Your task to perform on an android device: Open ESPN.com Image 0: 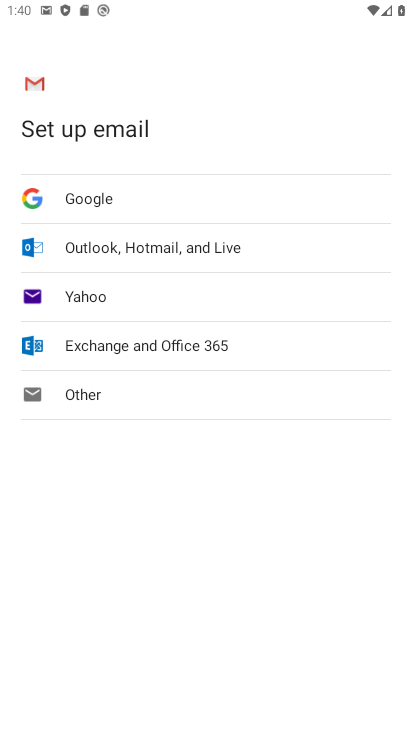
Step 0: press home button
Your task to perform on an android device: Open ESPN.com Image 1: 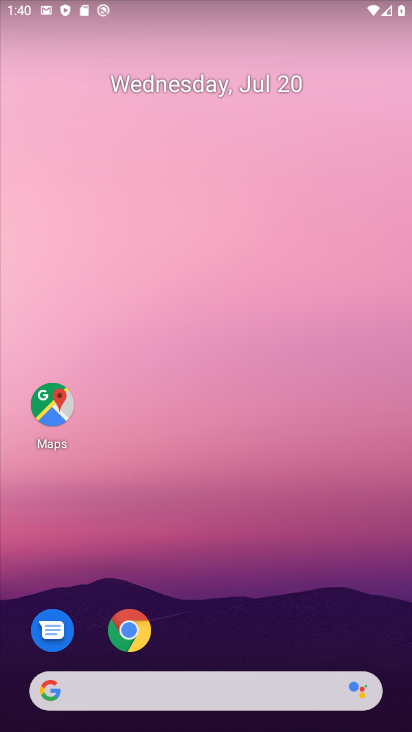
Step 1: click (131, 630)
Your task to perform on an android device: Open ESPN.com Image 2: 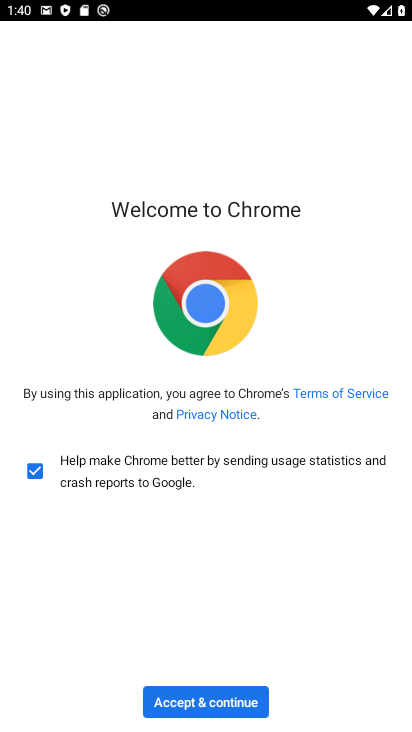
Step 2: click (205, 700)
Your task to perform on an android device: Open ESPN.com Image 3: 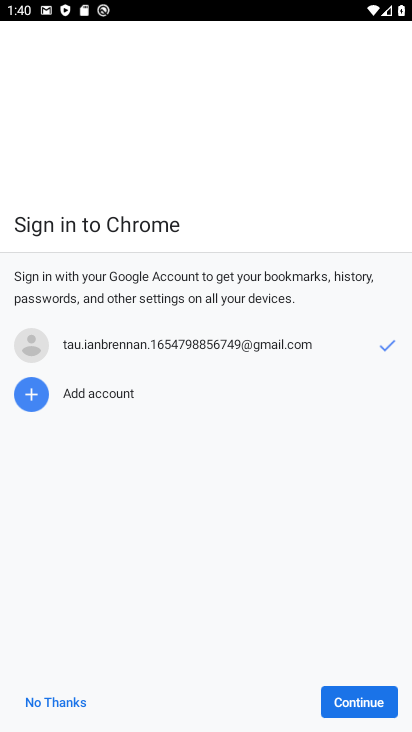
Step 3: click (363, 701)
Your task to perform on an android device: Open ESPN.com Image 4: 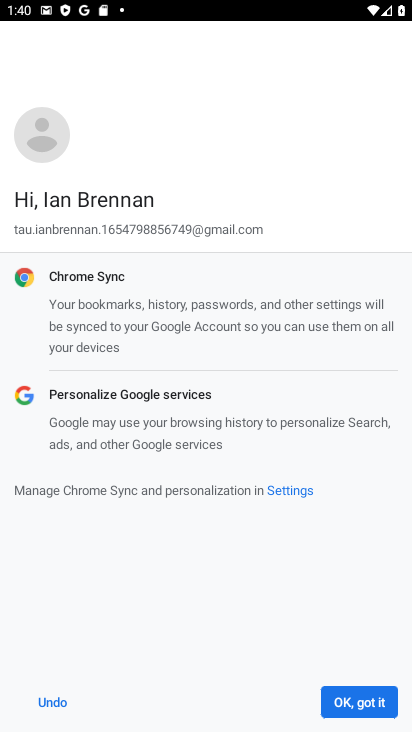
Step 4: click (363, 701)
Your task to perform on an android device: Open ESPN.com Image 5: 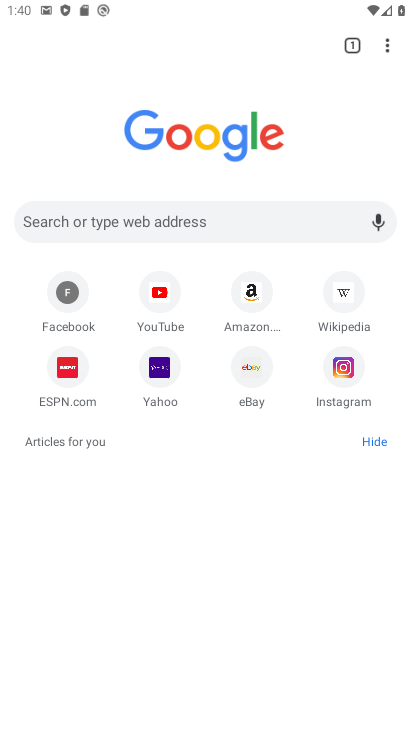
Step 5: click (63, 375)
Your task to perform on an android device: Open ESPN.com Image 6: 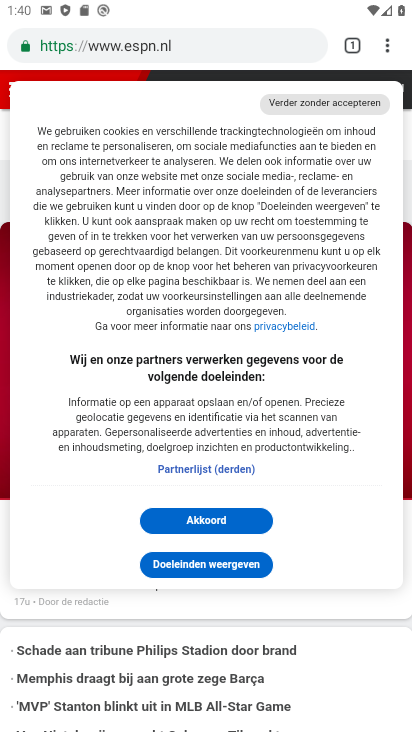
Step 6: task complete